Your task to perform on an android device: What's the weather today? Image 0: 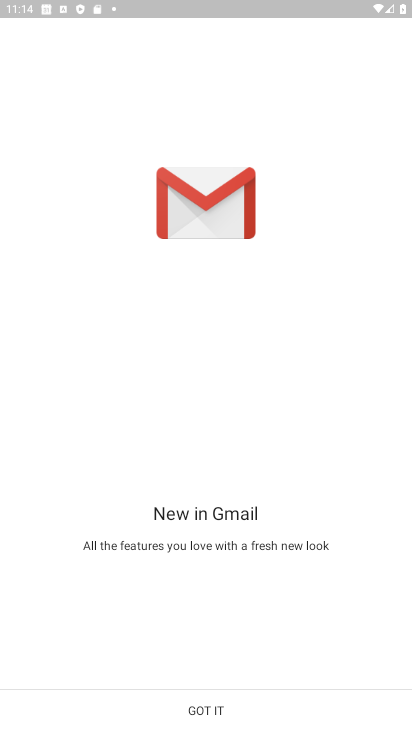
Step 0: press home button
Your task to perform on an android device: What's the weather today? Image 1: 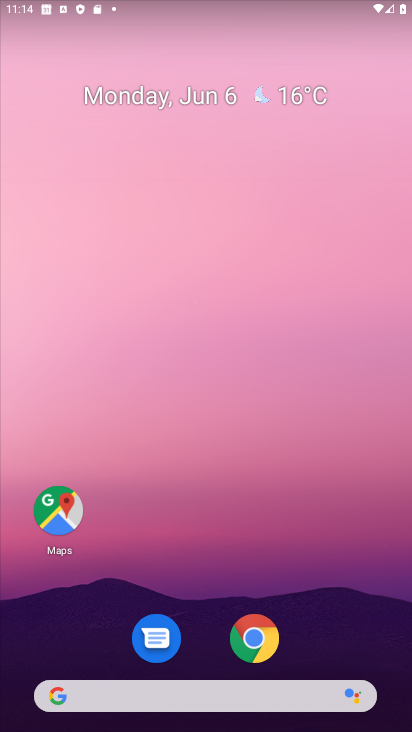
Step 1: click (207, 692)
Your task to perform on an android device: What's the weather today? Image 2: 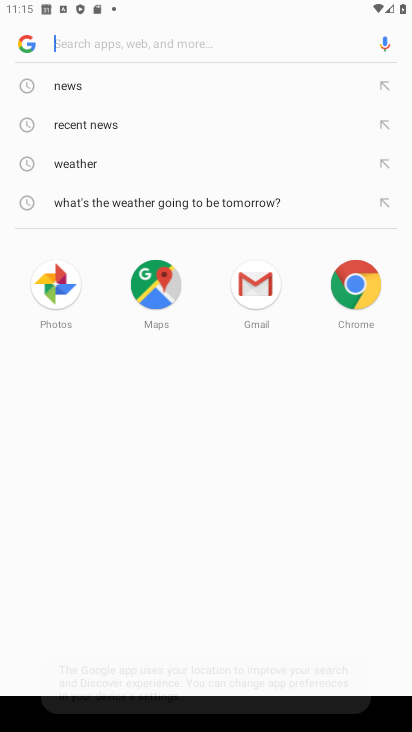
Step 2: click (86, 160)
Your task to perform on an android device: What's the weather today? Image 3: 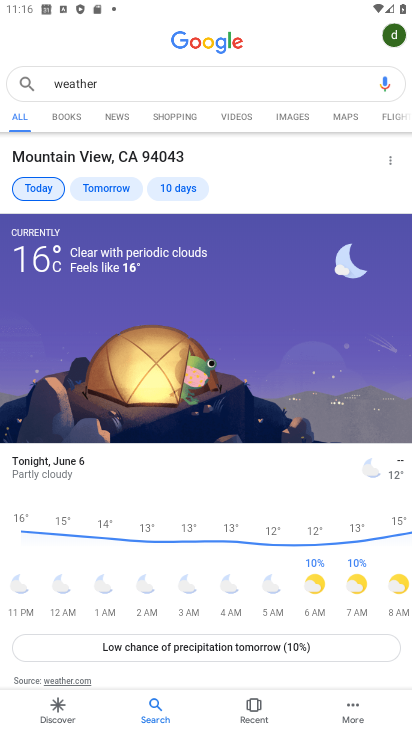
Step 3: task complete